Your task to perform on an android device: Go to internet settings Image 0: 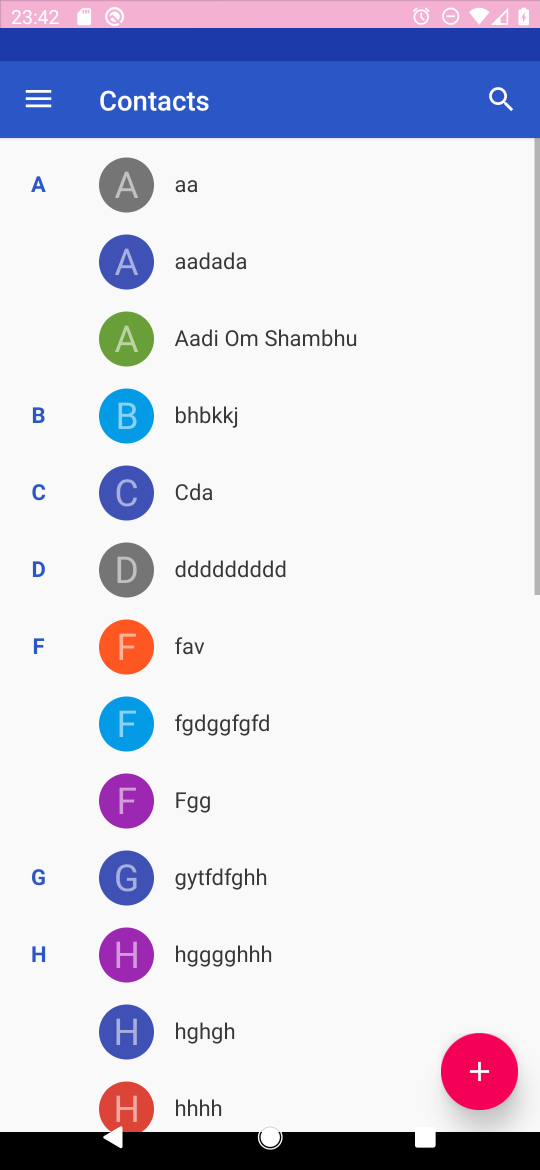
Step 0: press home button
Your task to perform on an android device: Go to internet settings Image 1: 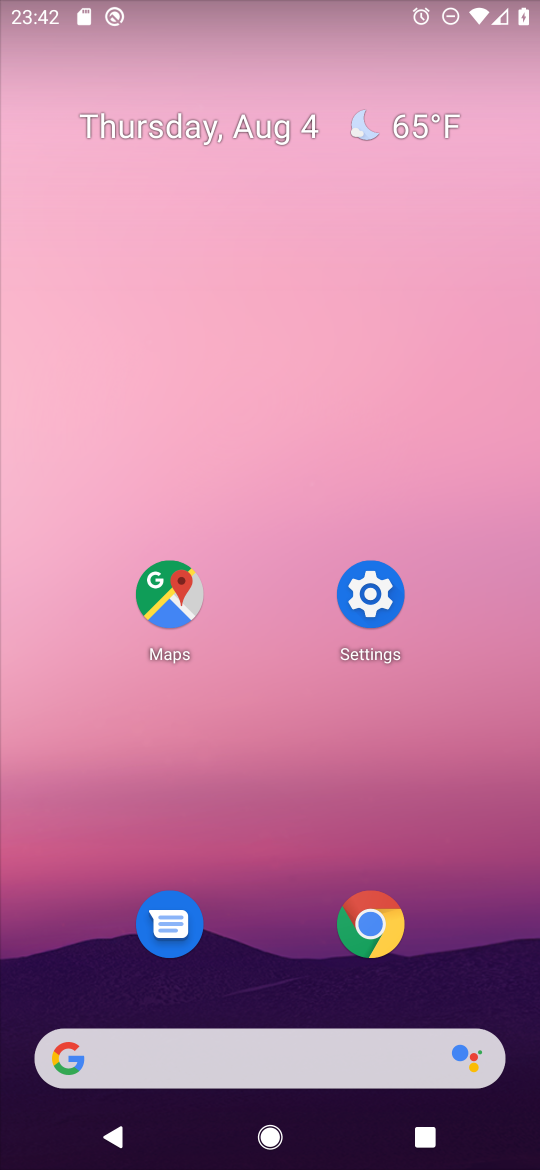
Step 1: click (390, 609)
Your task to perform on an android device: Go to internet settings Image 2: 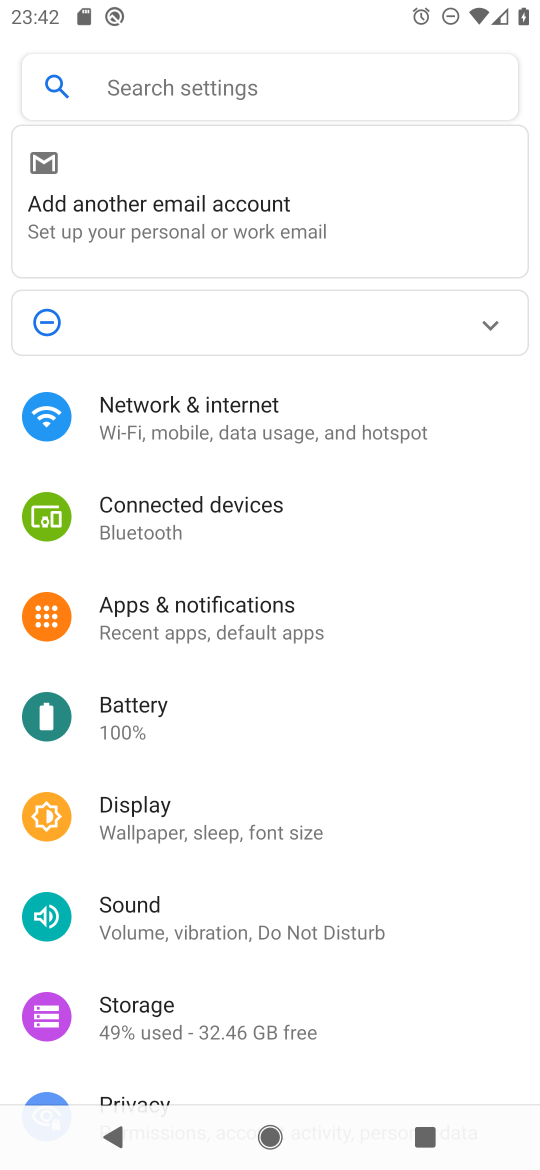
Step 2: click (231, 421)
Your task to perform on an android device: Go to internet settings Image 3: 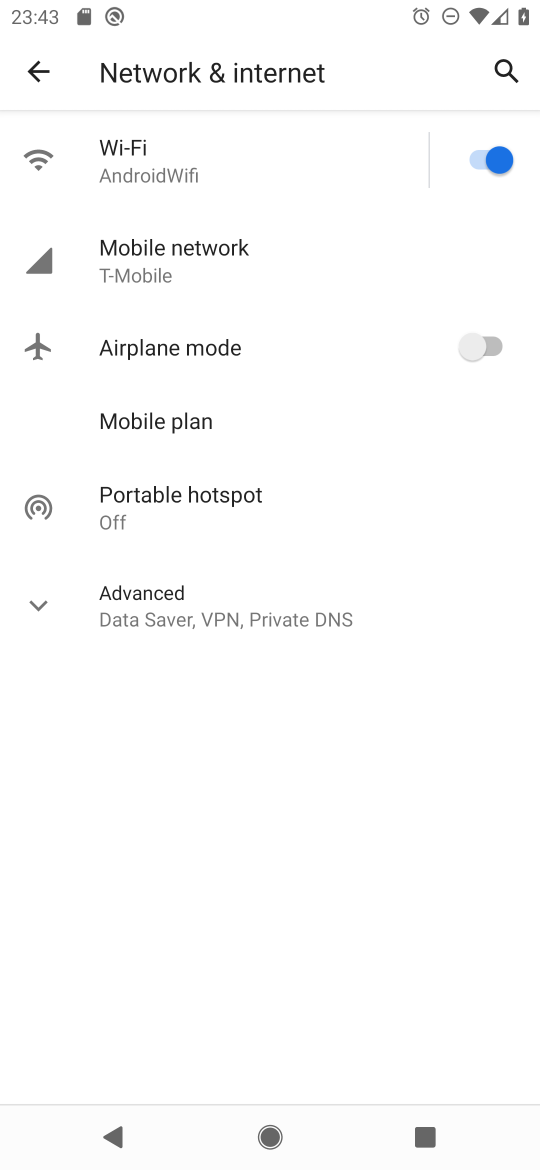
Step 3: task complete